Your task to perform on an android device: check out phone information Image 0: 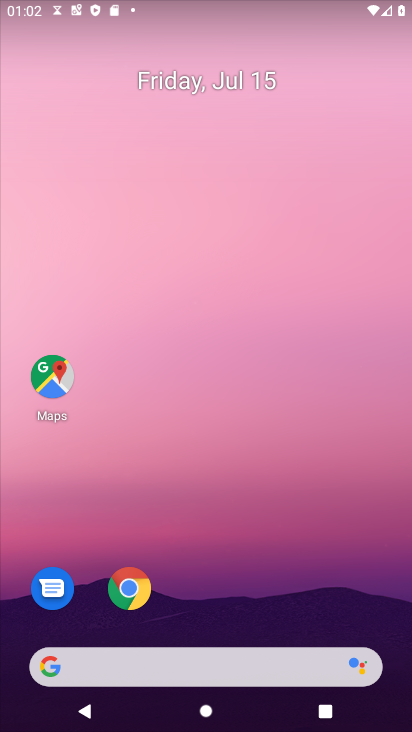
Step 0: drag from (221, 614) to (327, 59)
Your task to perform on an android device: check out phone information Image 1: 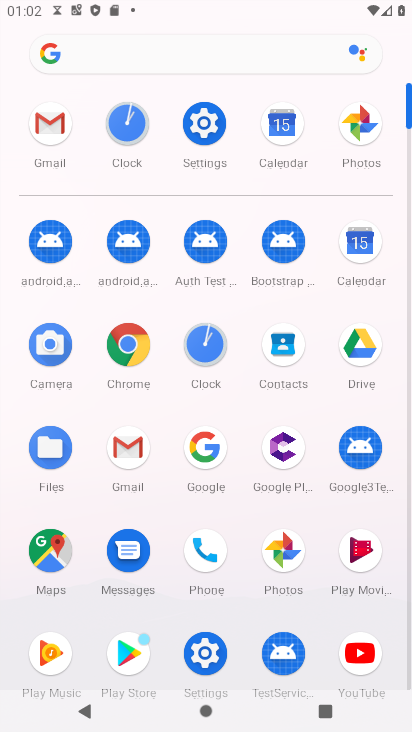
Step 1: click (212, 122)
Your task to perform on an android device: check out phone information Image 2: 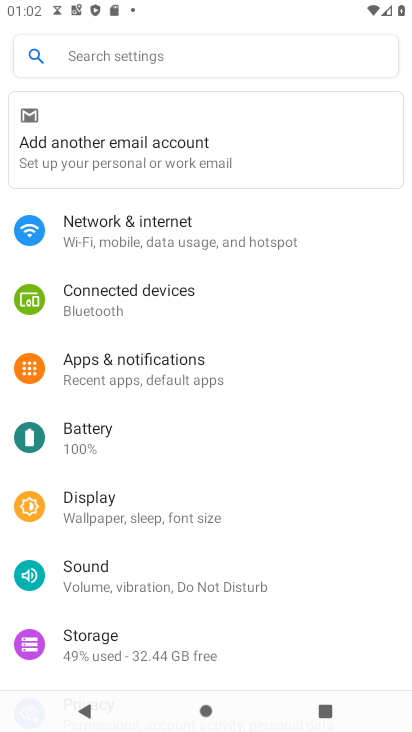
Step 2: drag from (160, 619) to (251, 12)
Your task to perform on an android device: check out phone information Image 3: 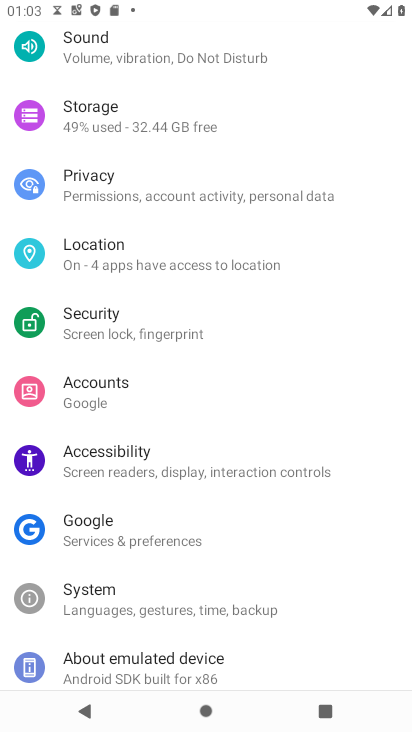
Step 3: drag from (140, 664) to (289, 63)
Your task to perform on an android device: check out phone information Image 4: 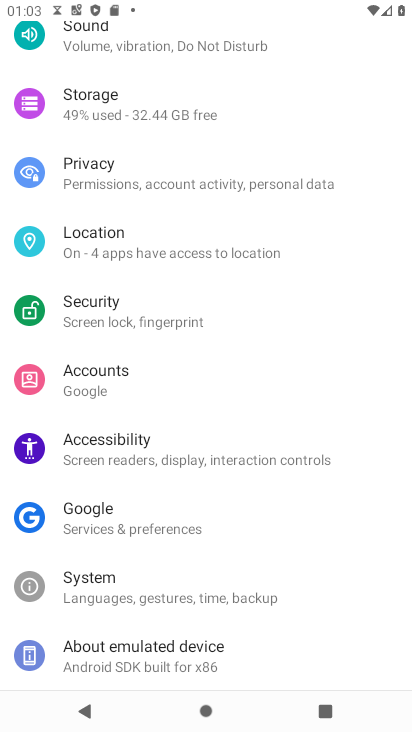
Step 4: click (133, 655)
Your task to perform on an android device: check out phone information Image 5: 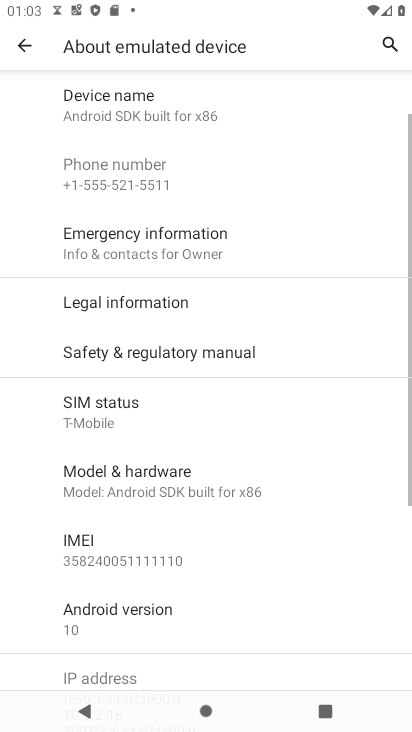
Step 5: task complete